Your task to perform on an android device: toggle sleep mode Image 0: 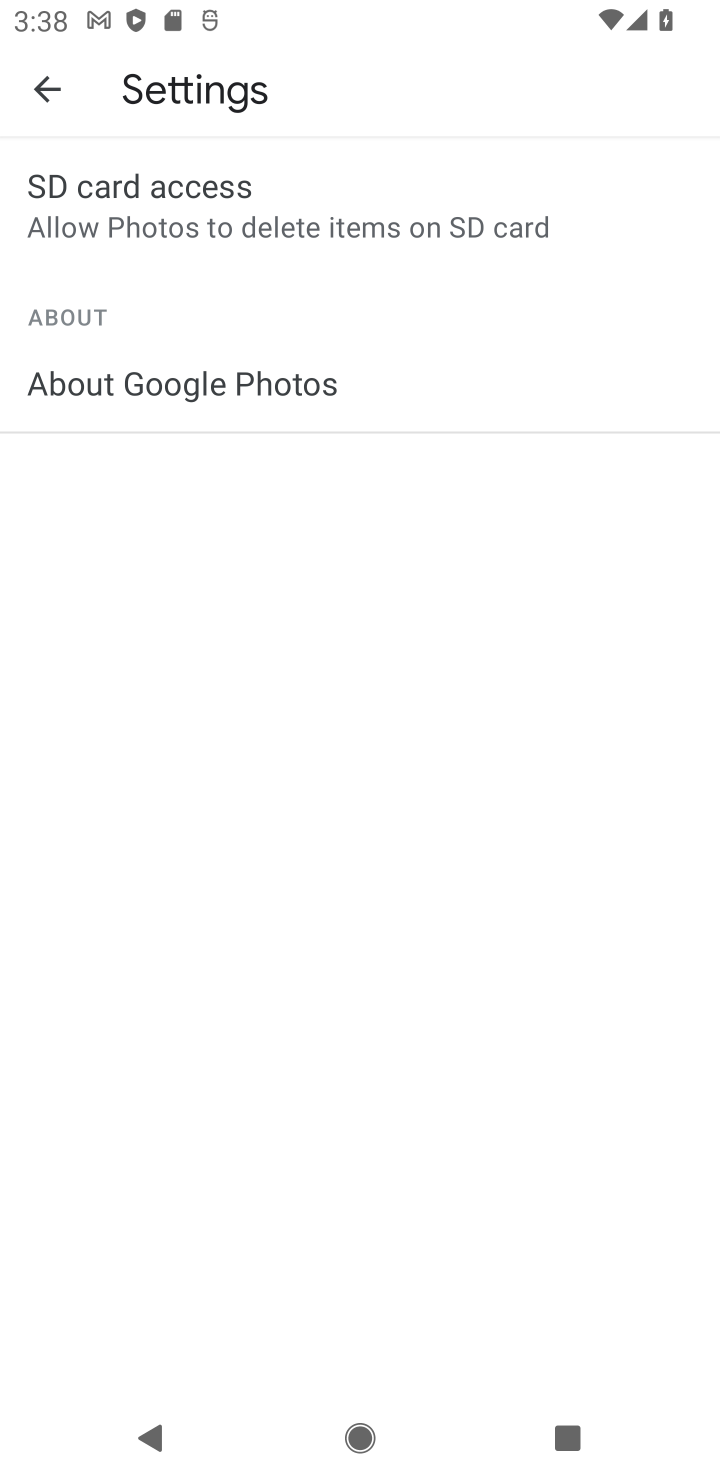
Step 0: task complete